Your task to perform on an android device: turn off notifications settings in the gmail app Image 0: 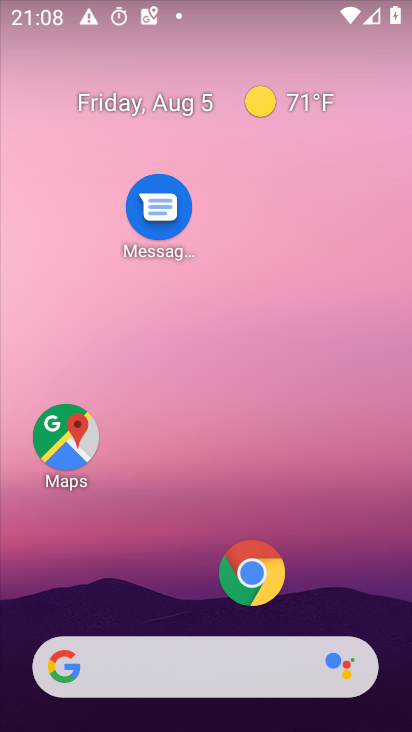
Step 0: press home button
Your task to perform on an android device: turn off notifications settings in the gmail app Image 1: 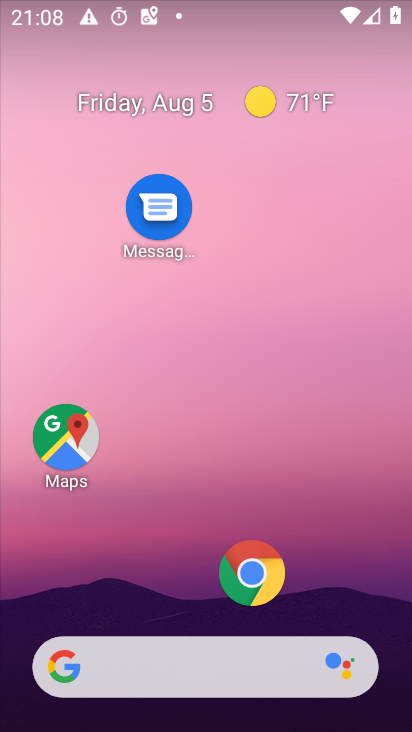
Step 1: drag from (194, 608) to (226, 58)
Your task to perform on an android device: turn off notifications settings in the gmail app Image 2: 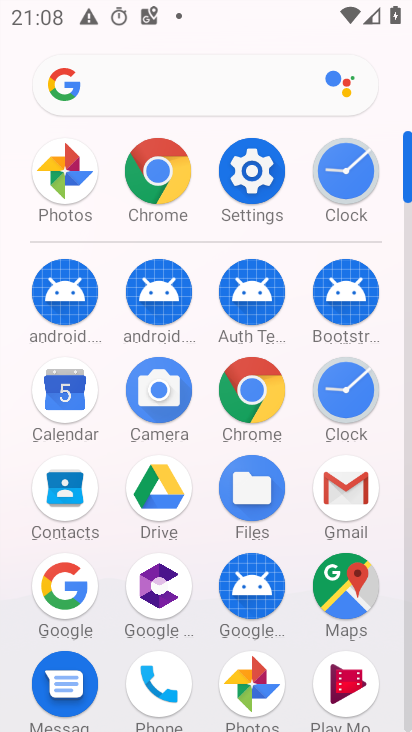
Step 2: click (343, 478)
Your task to perform on an android device: turn off notifications settings in the gmail app Image 3: 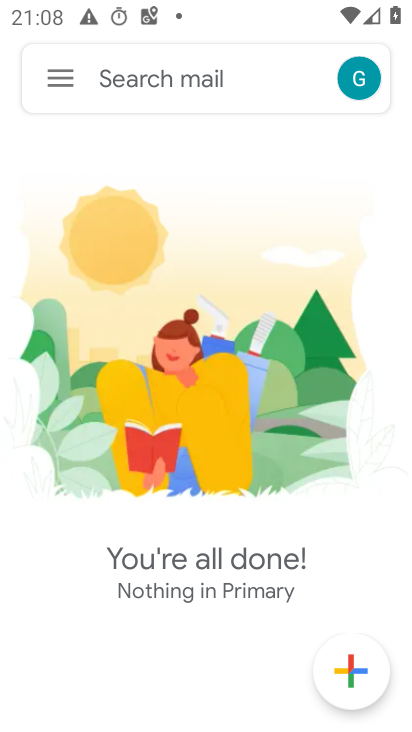
Step 3: click (52, 68)
Your task to perform on an android device: turn off notifications settings in the gmail app Image 4: 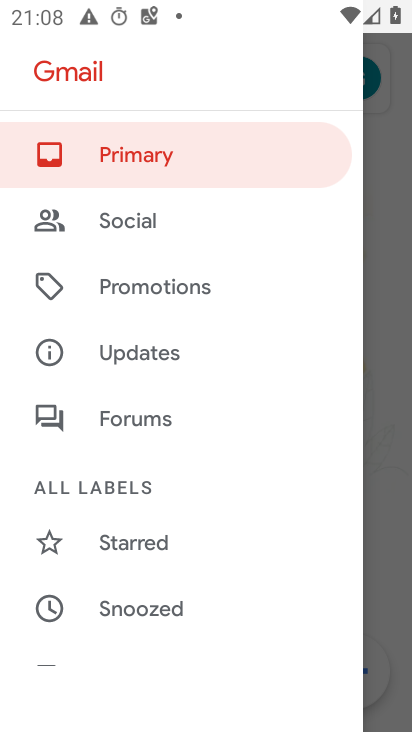
Step 4: drag from (188, 621) to (217, 106)
Your task to perform on an android device: turn off notifications settings in the gmail app Image 5: 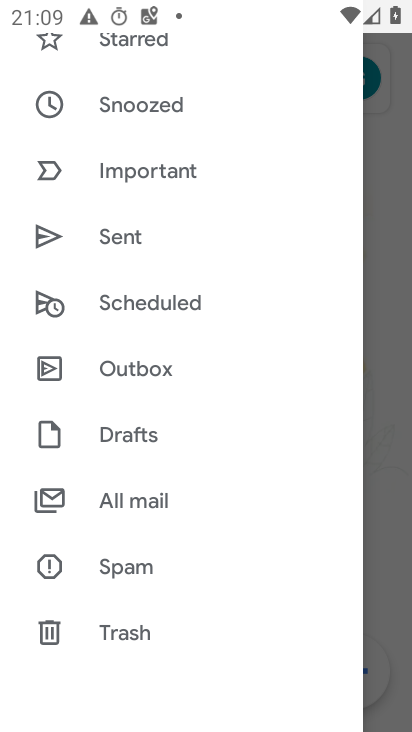
Step 5: drag from (166, 634) to (214, 115)
Your task to perform on an android device: turn off notifications settings in the gmail app Image 6: 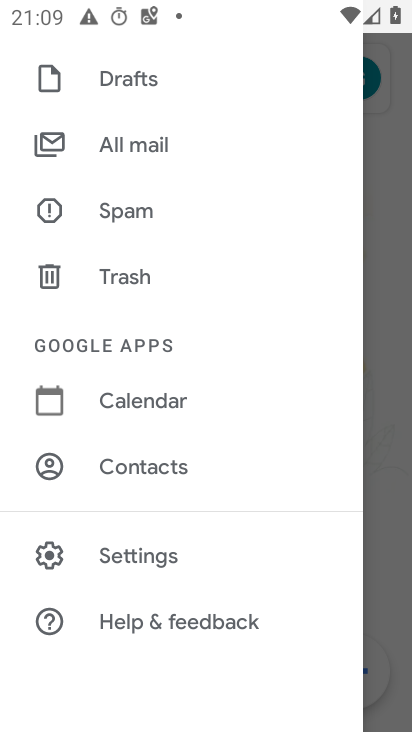
Step 6: click (181, 548)
Your task to perform on an android device: turn off notifications settings in the gmail app Image 7: 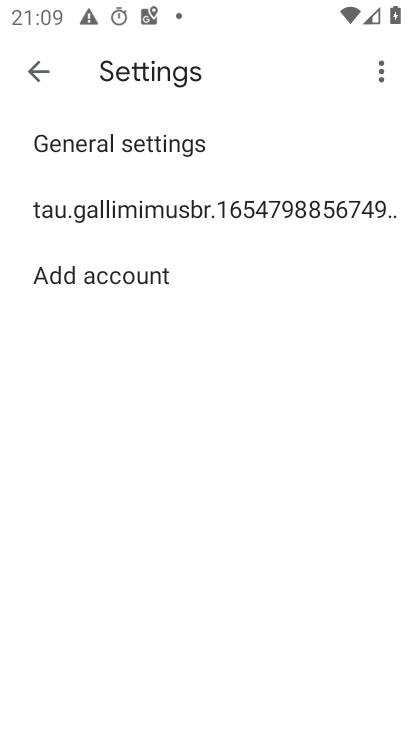
Step 7: click (212, 145)
Your task to perform on an android device: turn off notifications settings in the gmail app Image 8: 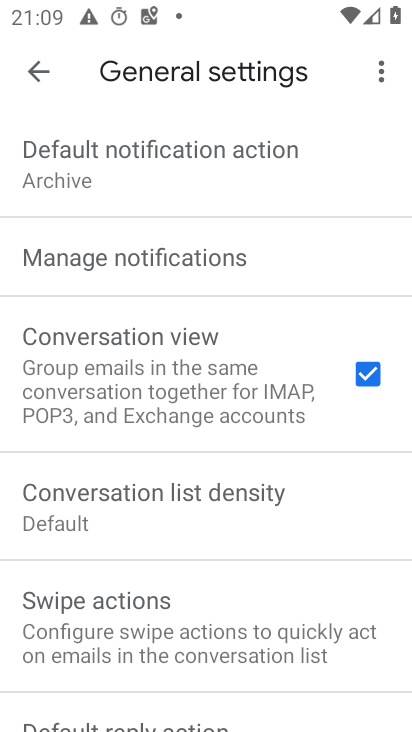
Step 8: click (256, 265)
Your task to perform on an android device: turn off notifications settings in the gmail app Image 9: 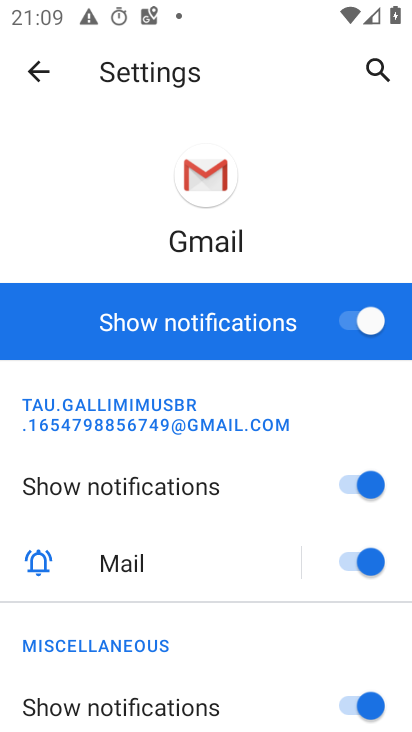
Step 9: click (349, 315)
Your task to perform on an android device: turn off notifications settings in the gmail app Image 10: 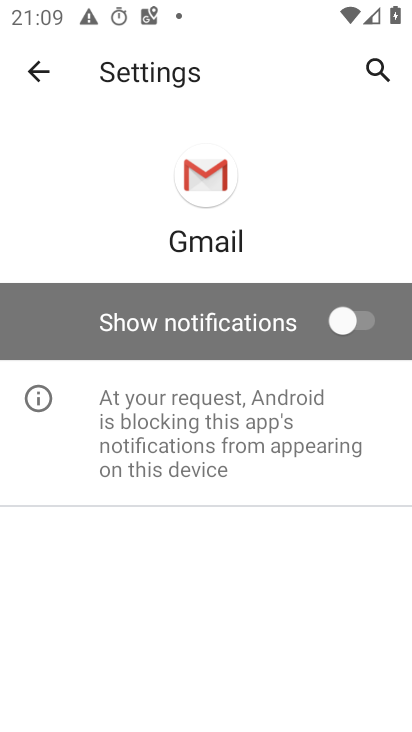
Step 10: task complete